Your task to perform on an android device: change the clock style Image 0: 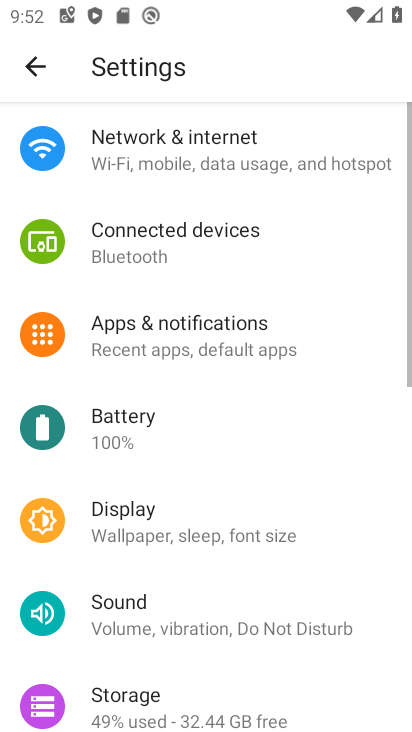
Step 0: press home button
Your task to perform on an android device: change the clock style Image 1: 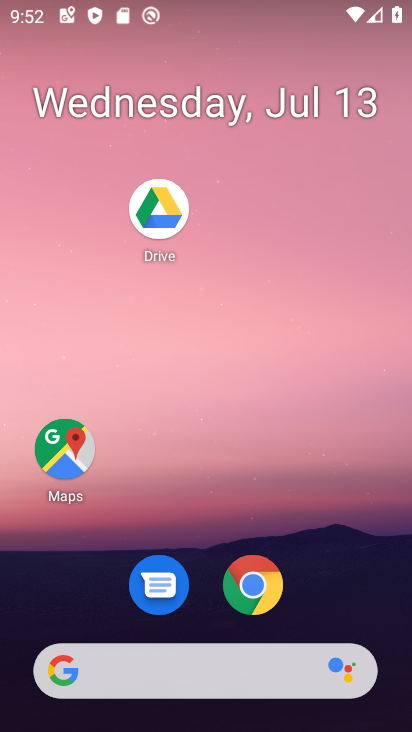
Step 1: drag from (210, 679) to (333, 211)
Your task to perform on an android device: change the clock style Image 2: 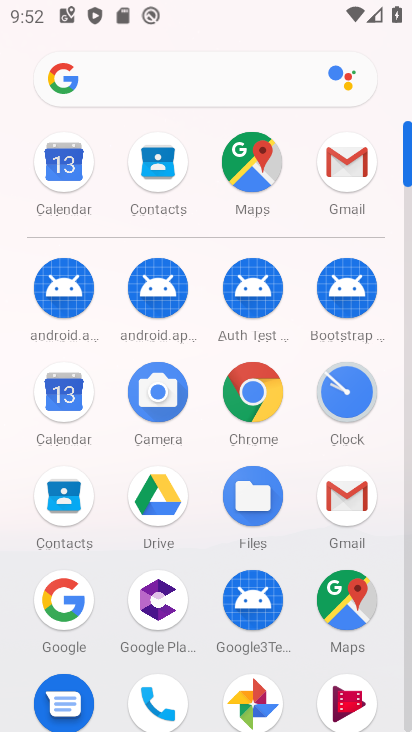
Step 2: click (342, 397)
Your task to perform on an android device: change the clock style Image 3: 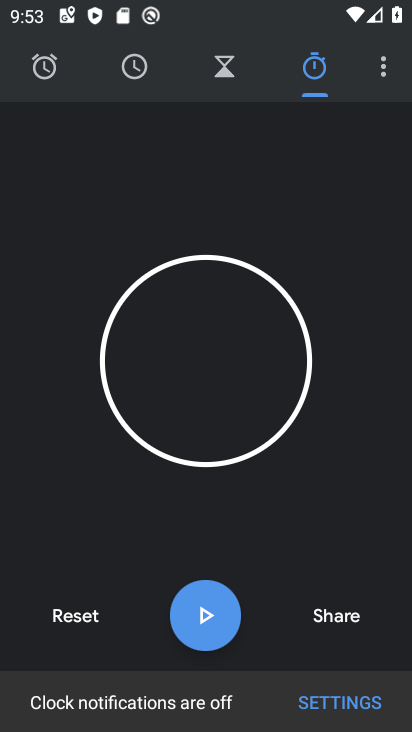
Step 3: click (386, 63)
Your task to perform on an android device: change the clock style Image 4: 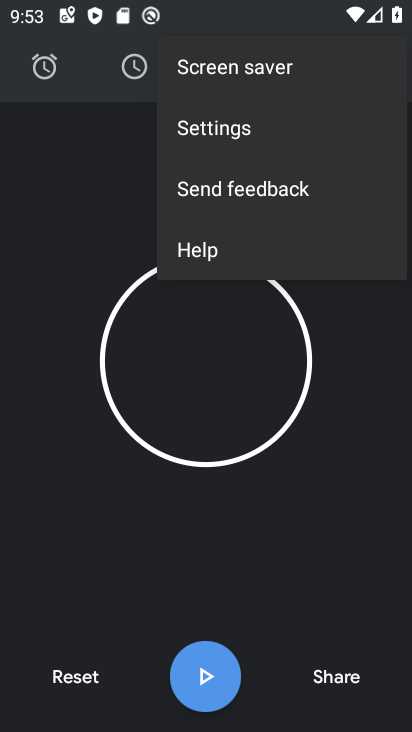
Step 4: click (256, 137)
Your task to perform on an android device: change the clock style Image 5: 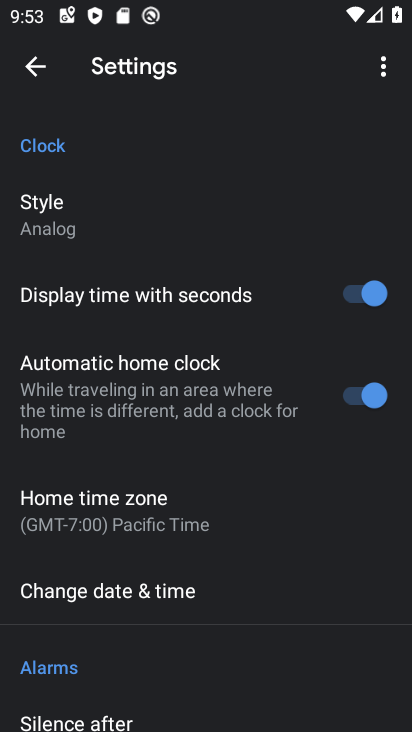
Step 5: click (63, 225)
Your task to perform on an android device: change the clock style Image 6: 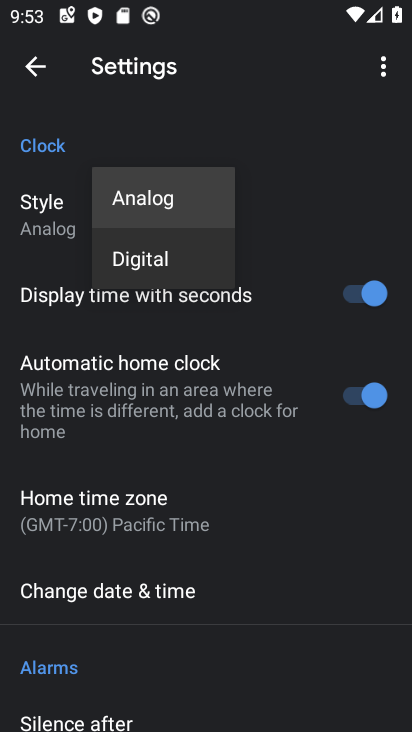
Step 6: click (135, 251)
Your task to perform on an android device: change the clock style Image 7: 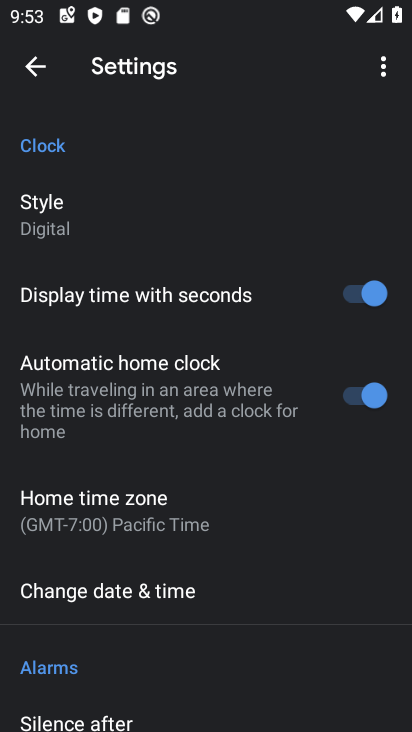
Step 7: task complete